Your task to perform on an android device: Search for sushi restaurants on Maps Image 0: 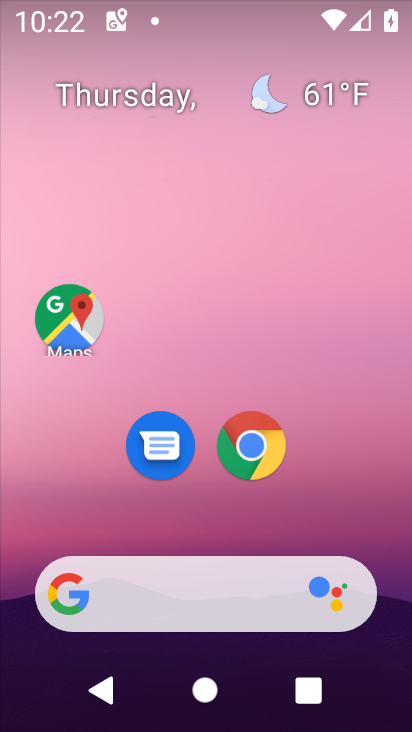
Step 0: click (84, 330)
Your task to perform on an android device: Search for sushi restaurants on Maps Image 1: 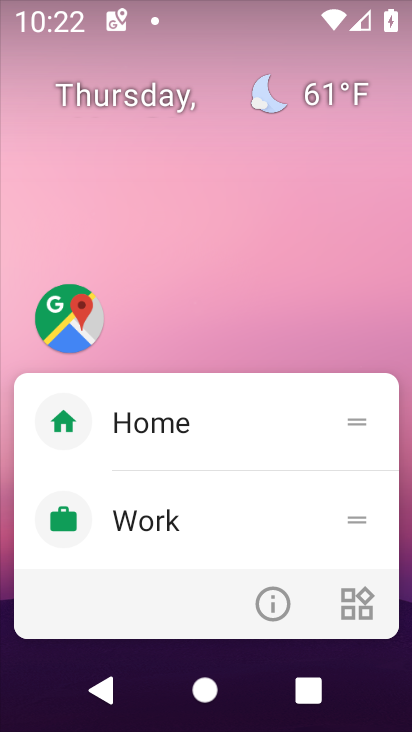
Step 1: click (54, 307)
Your task to perform on an android device: Search for sushi restaurants on Maps Image 2: 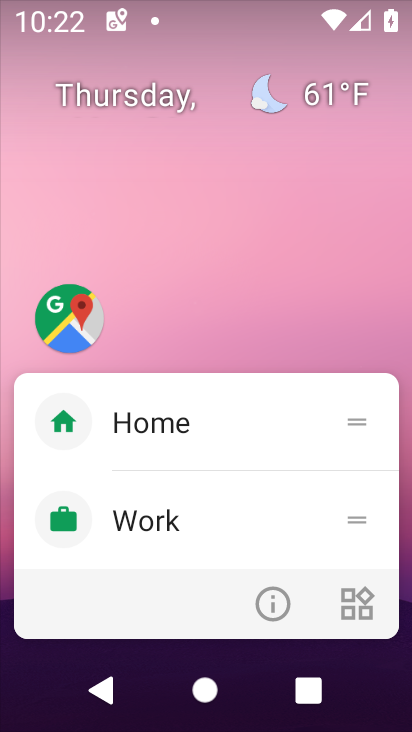
Step 2: click (54, 307)
Your task to perform on an android device: Search for sushi restaurants on Maps Image 3: 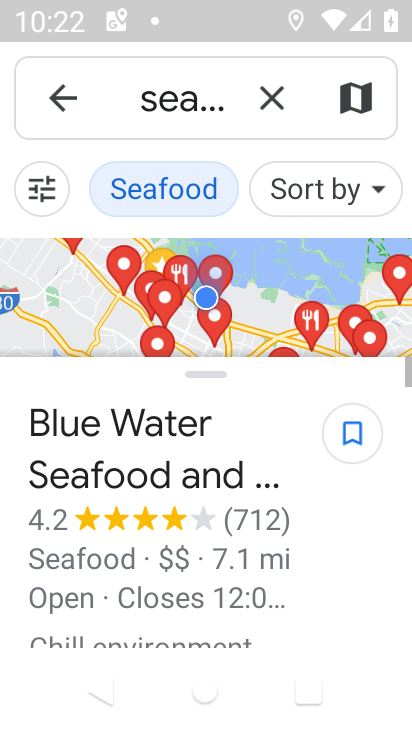
Step 3: click (258, 95)
Your task to perform on an android device: Search for sushi restaurants on Maps Image 4: 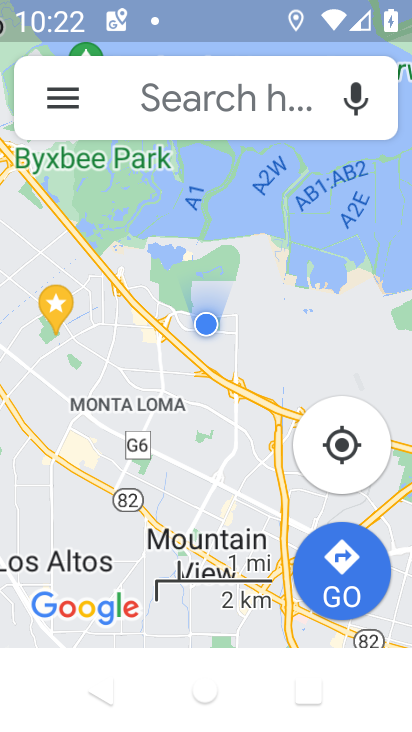
Step 4: click (194, 93)
Your task to perform on an android device: Search for sushi restaurants on Maps Image 5: 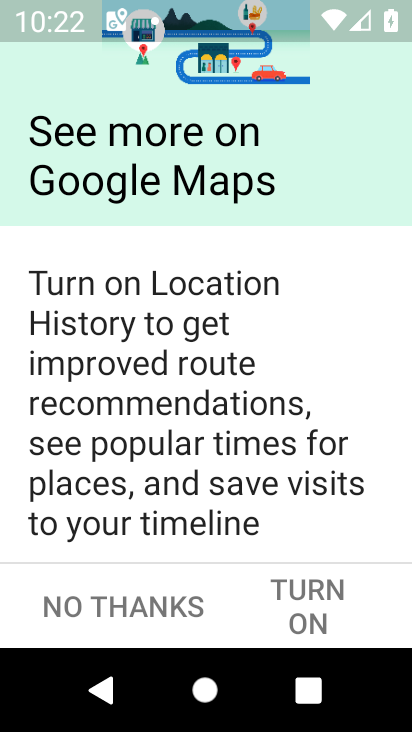
Step 5: click (162, 619)
Your task to perform on an android device: Search for sushi restaurants on Maps Image 6: 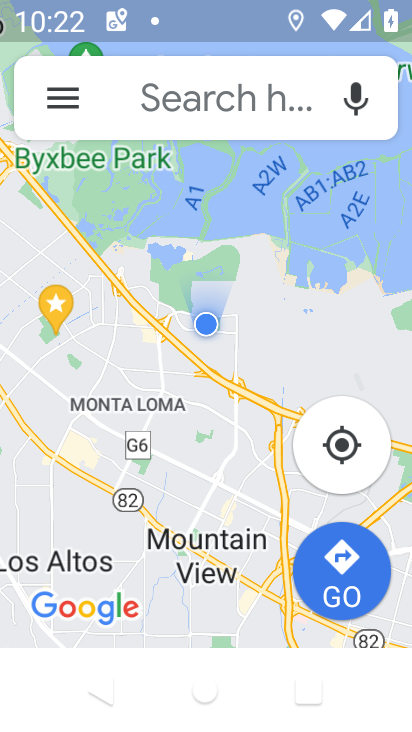
Step 6: click (251, 84)
Your task to perform on an android device: Search for sushi restaurants on Maps Image 7: 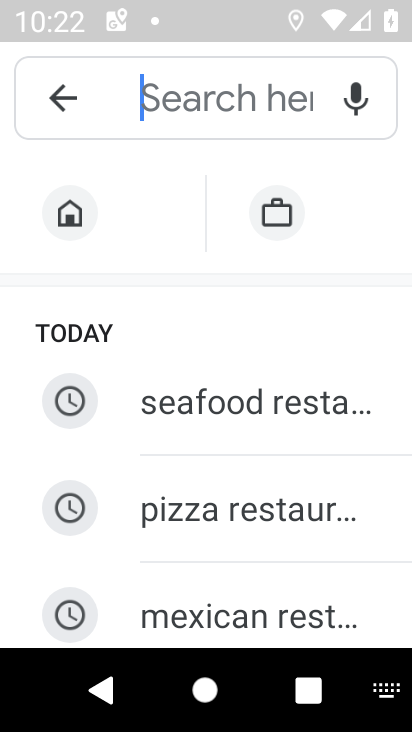
Step 7: type "sushi restaurants"
Your task to perform on an android device: Search for sushi restaurants on Maps Image 8: 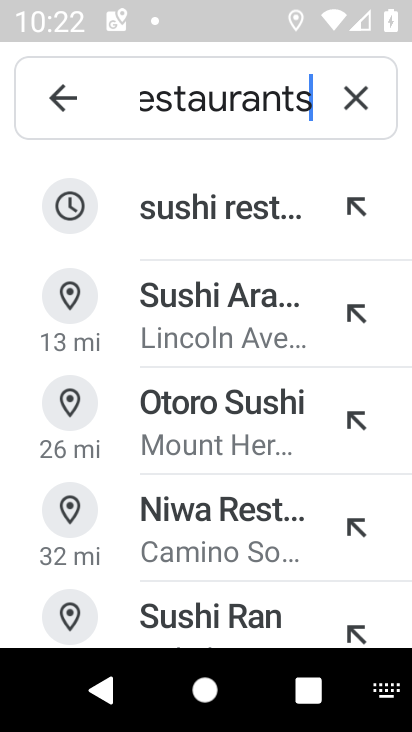
Step 8: click (269, 202)
Your task to perform on an android device: Search for sushi restaurants on Maps Image 9: 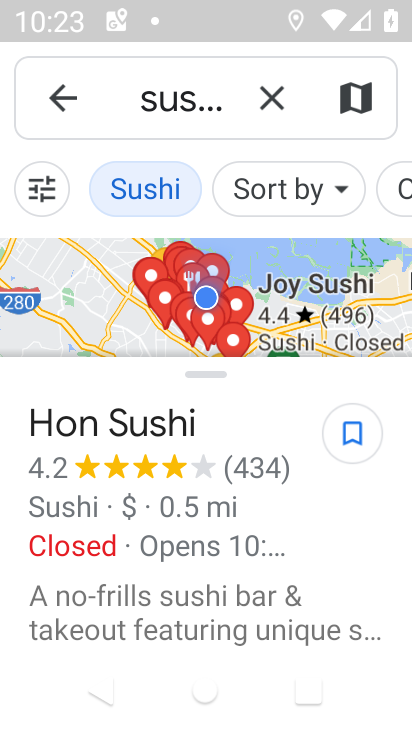
Step 9: task complete